Your task to perform on an android device: What's the weather? Image 0: 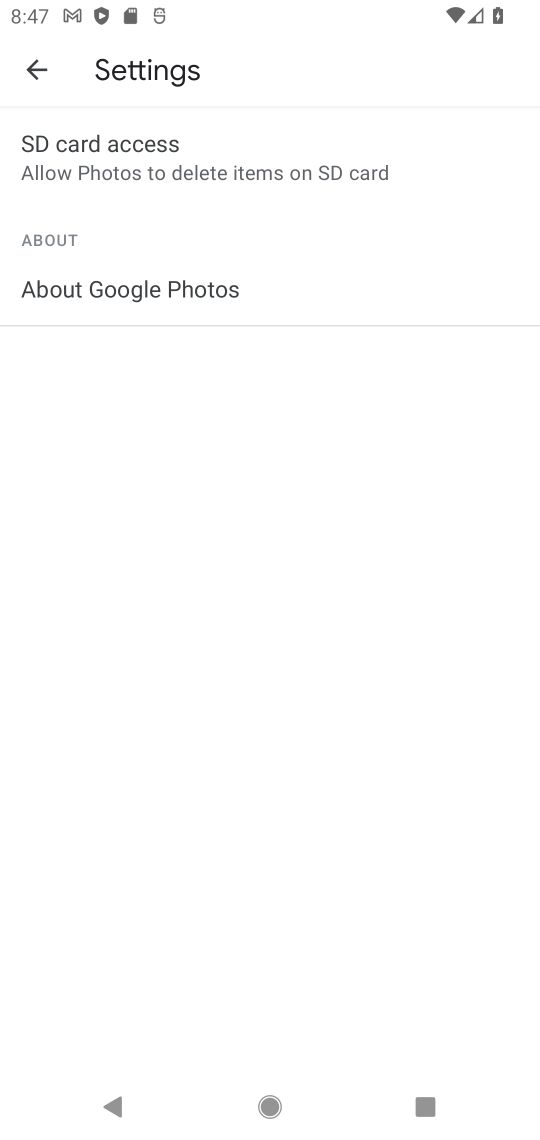
Step 0: press home button
Your task to perform on an android device: What's the weather? Image 1: 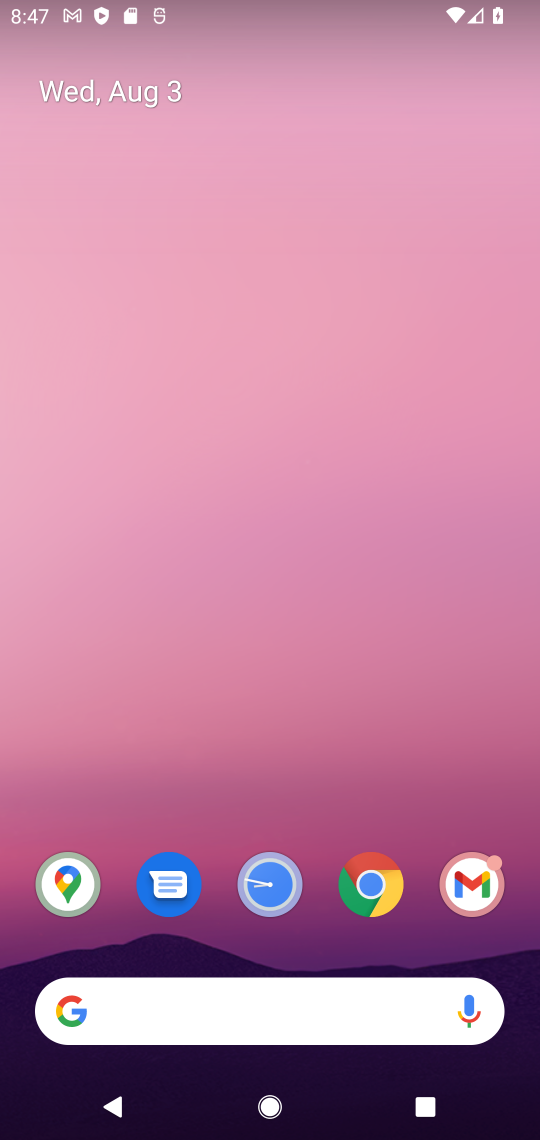
Step 1: click (167, 1008)
Your task to perform on an android device: What's the weather? Image 2: 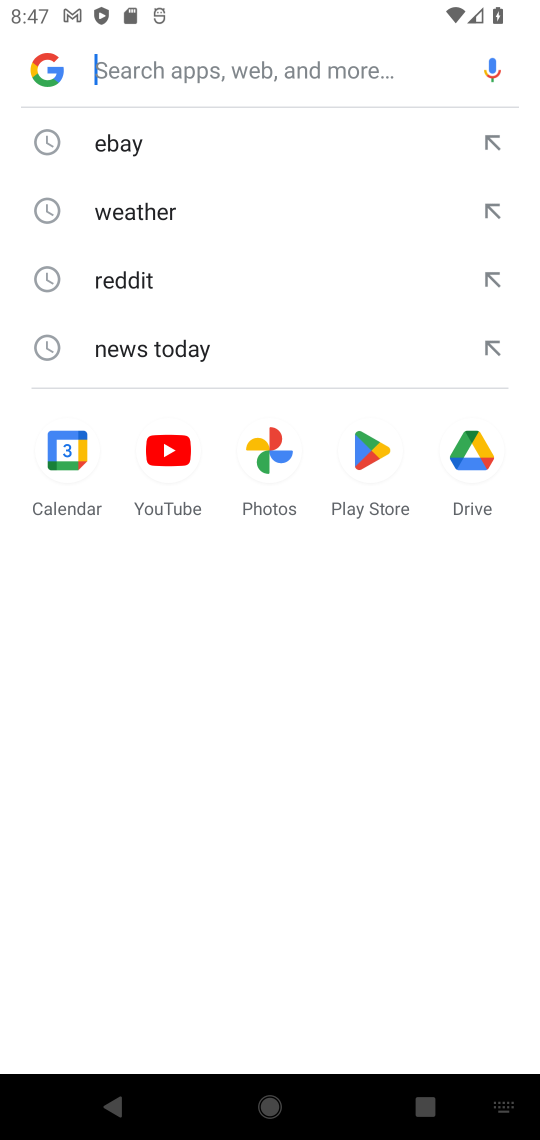
Step 2: type "What's the weather?"
Your task to perform on an android device: What's the weather? Image 3: 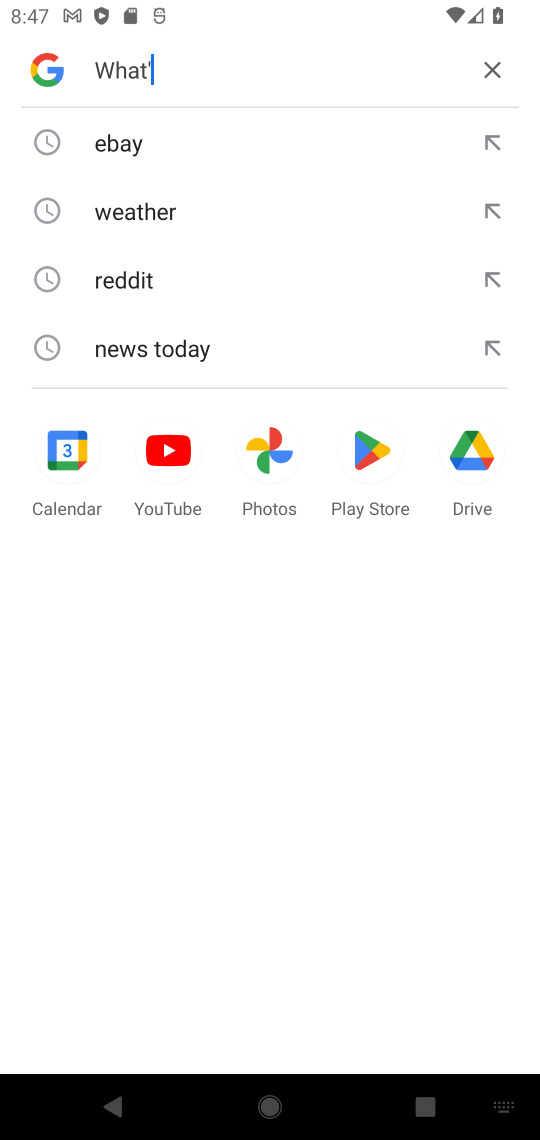
Step 3: type ""
Your task to perform on an android device: What's the weather? Image 4: 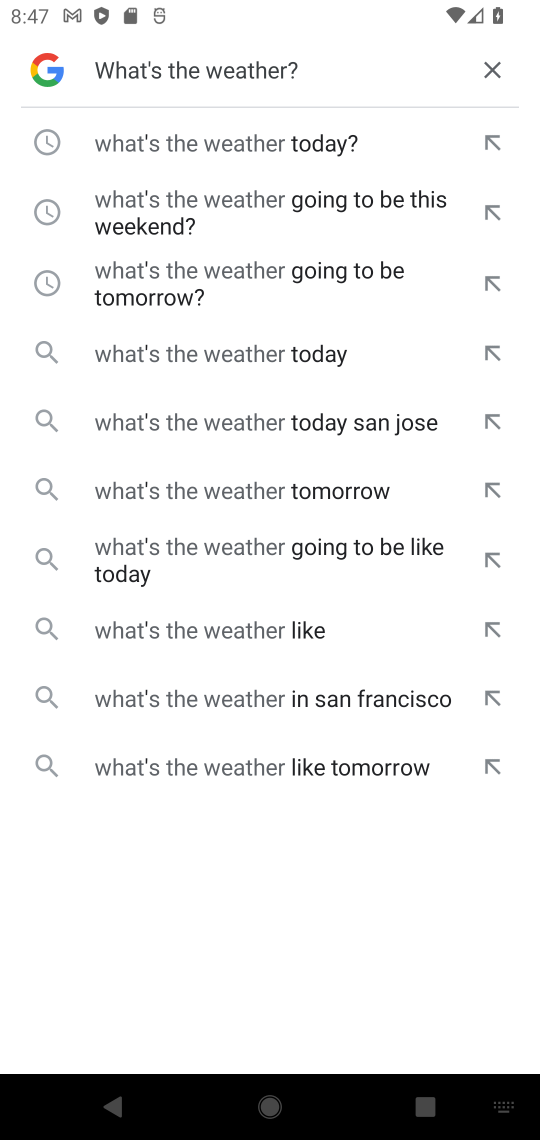
Step 4: type ""
Your task to perform on an android device: What's the weather? Image 5: 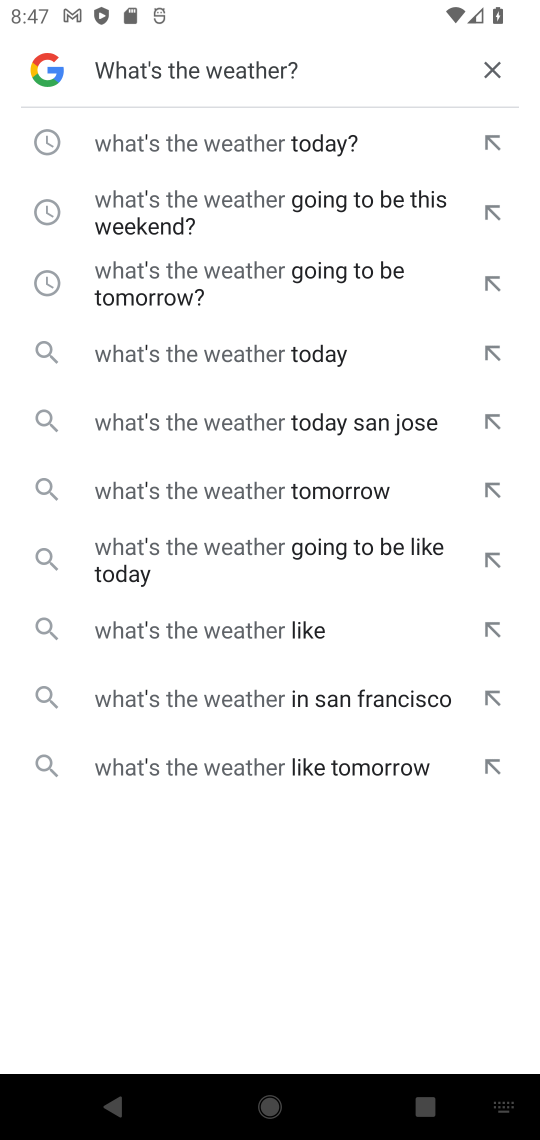
Step 5: type ""
Your task to perform on an android device: What's the weather? Image 6: 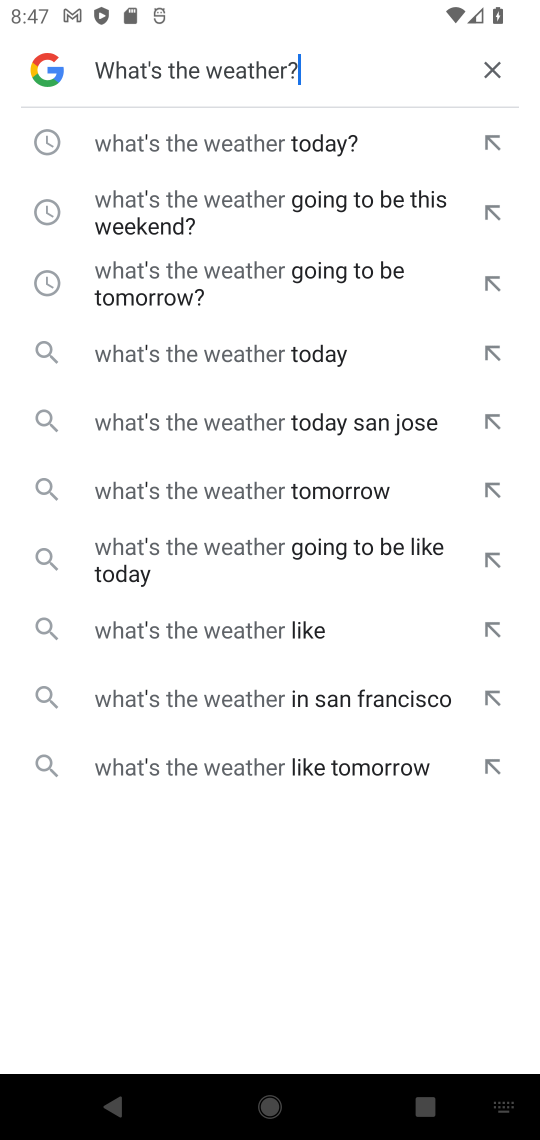
Step 6: type ""
Your task to perform on an android device: What's the weather? Image 7: 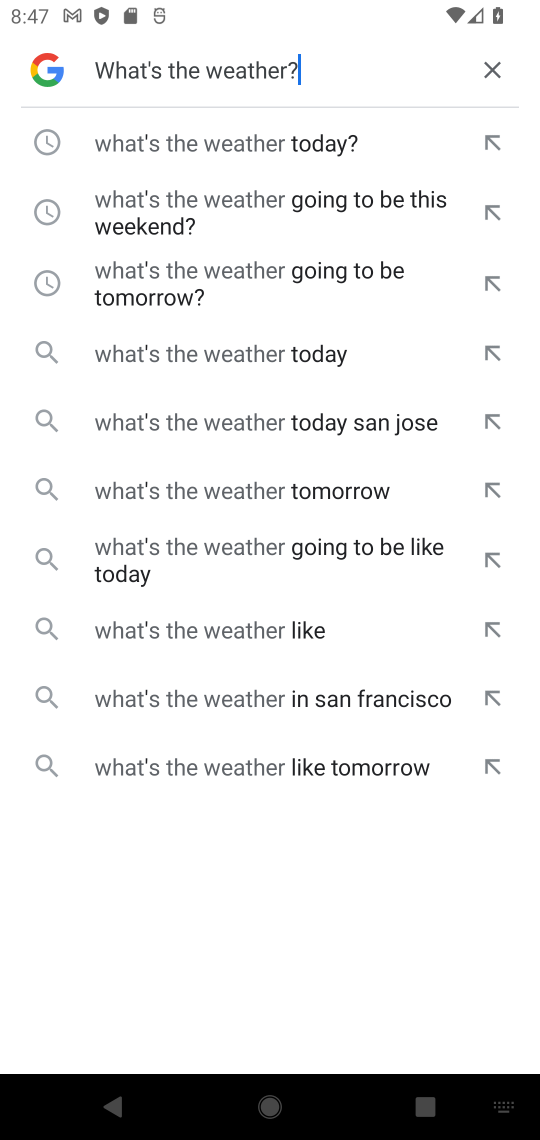
Step 7: task complete